Your task to perform on an android device: Open Google Chrome and click the shortcut for Amazon.com Image 0: 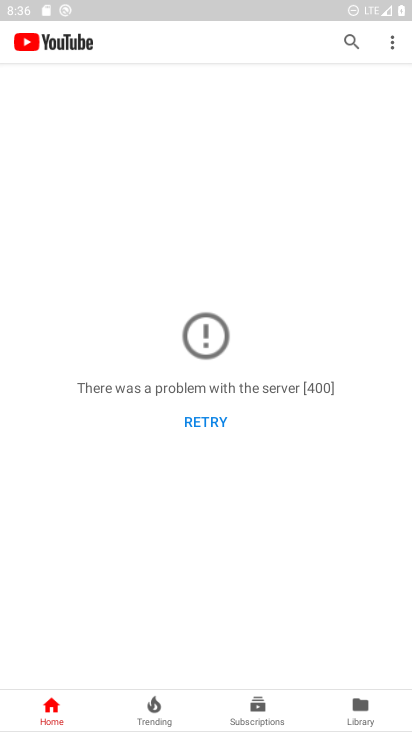
Step 0: press home button
Your task to perform on an android device: Open Google Chrome and click the shortcut for Amazon.com Image 1: 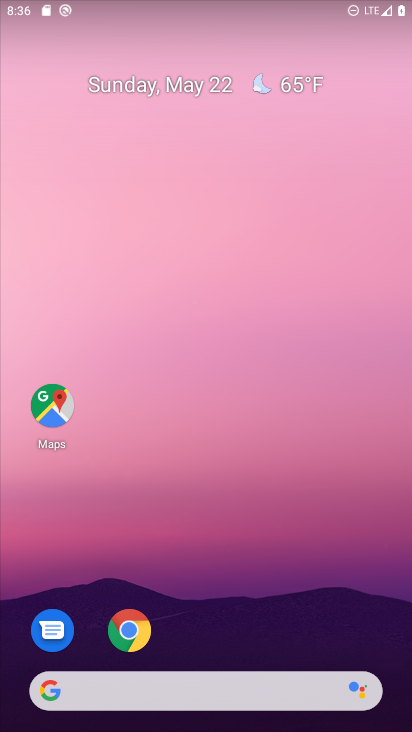
Step 1: click (132, 639)
Your task to perform on an android device: Open Google Chrome and click the shortcut for Amazon.com Image 2: 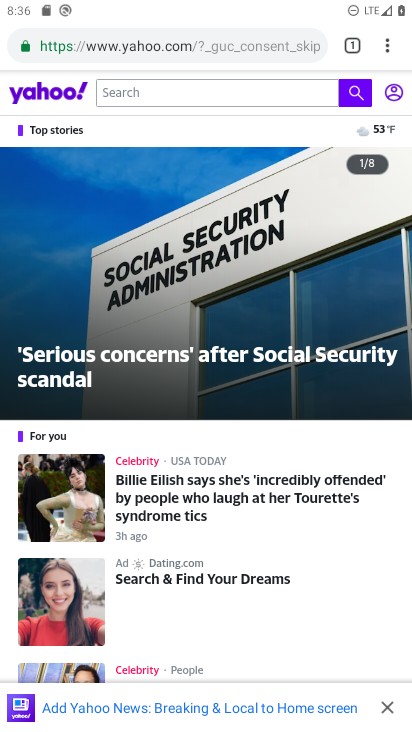
Step 2: drag from (382, 48) to (283, 89)
Your task to perform on an android device: Open Google Chrome and click the shortcut for Amazon.com Image 3: 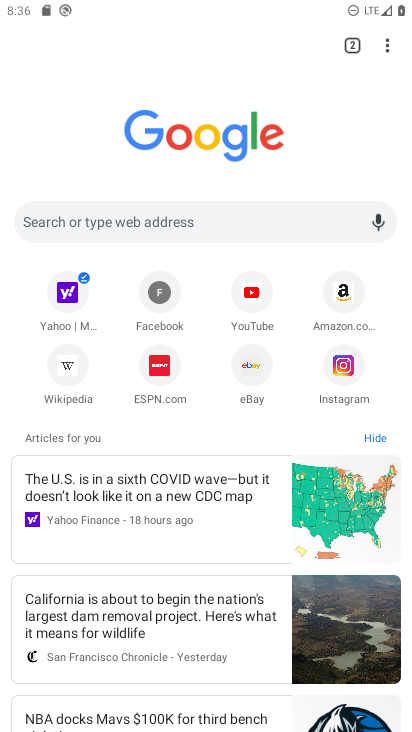
Step 3: click (346, 290)
Your task to perform on an android device: Open Google Chrome and click the shortcut for Amazon.com Image 4: 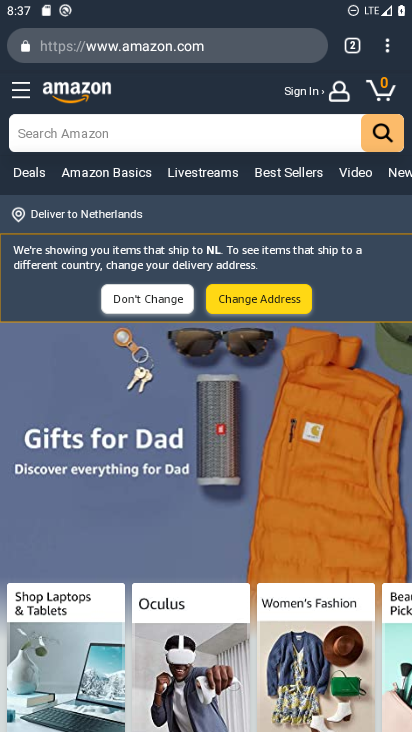
Step 4: task complete